Your task to perform on an android device: Show me the alarms in the clock app Image 0: 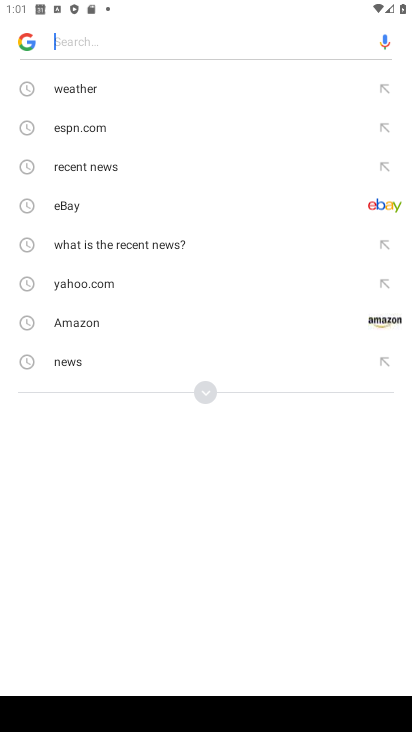
Step 0: press home button
Your task to perform on an android device: Show me the alarms in the clock app Image 1: 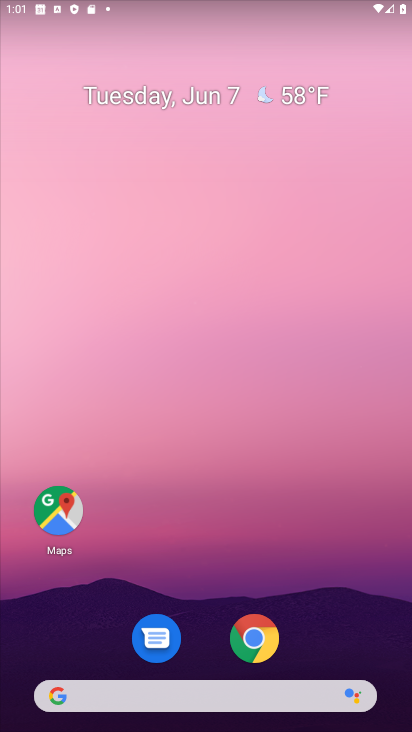
Step 1: drag from (206, 651) to (220, 97)
Your task to perform on an android device: Show me the alarms in the clock app Image 2: 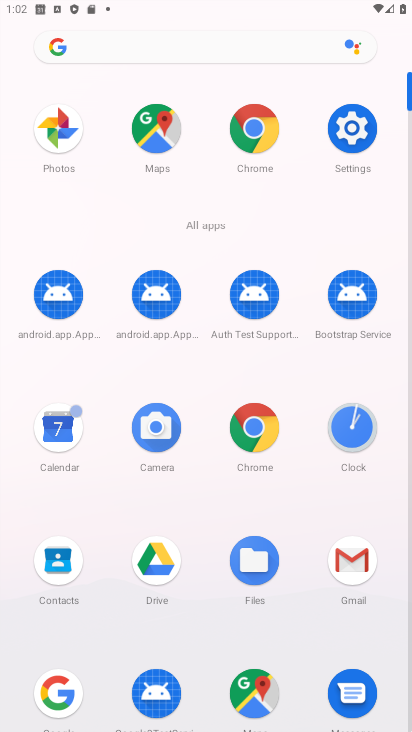
Step 2: drag from (226, 539) to (338, 143)
Your task to perform on an android device: Show me the alarms in the clock app Image 3: 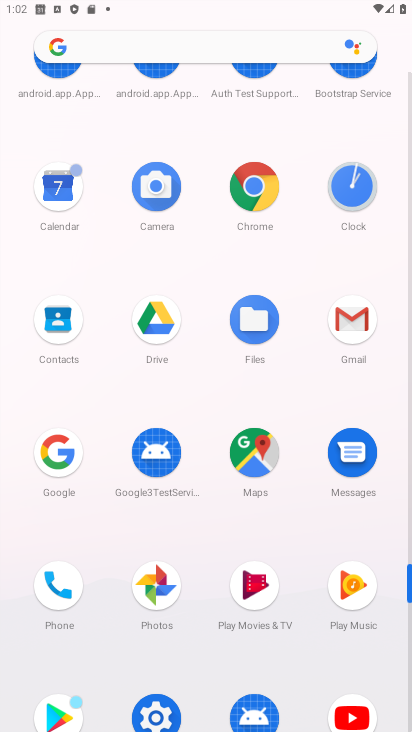
Step 3: drag from (211, 596) to (257, 209)
Your task to perform on an android device: Show me the alarms in the clock app Image 4: 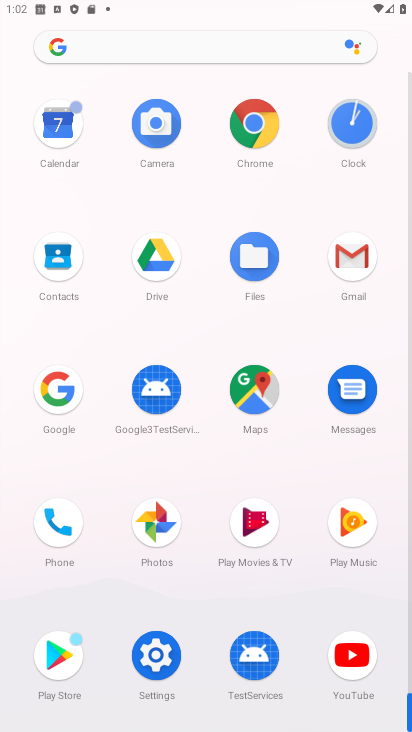
Step 4: click (359, 115)
Your task to perform on an android device: Show me the alarms in the clock app Image 5: 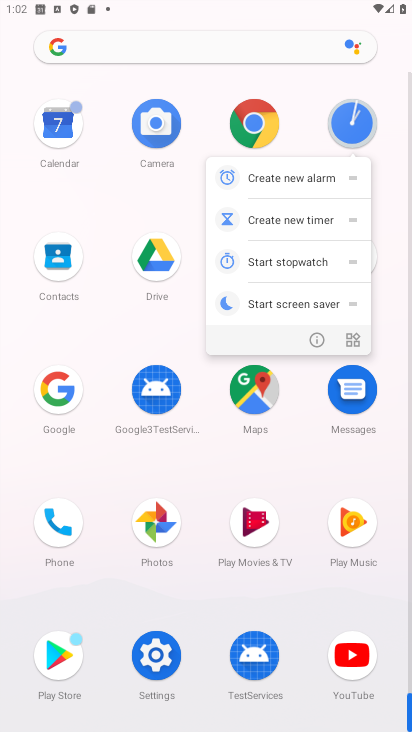
Step 5: click (348, 112)
Your task to perform on an android device: Show me the alarms in the clock app Image 6: 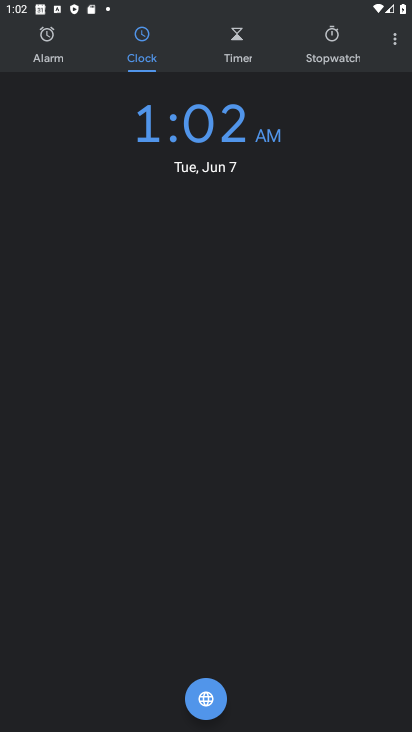
Step 6: click (49, 59)
Your task to perform on an android device: Show me the alarms in the clock app Image 7: 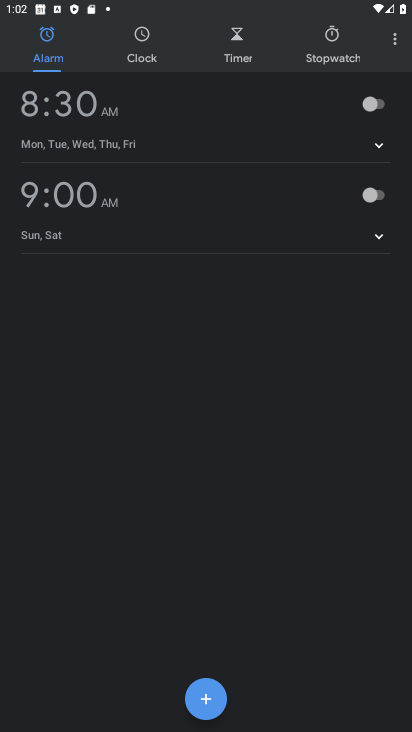
Step 7: task complete